Your task to perform on an android device: change the clock style Image 0: 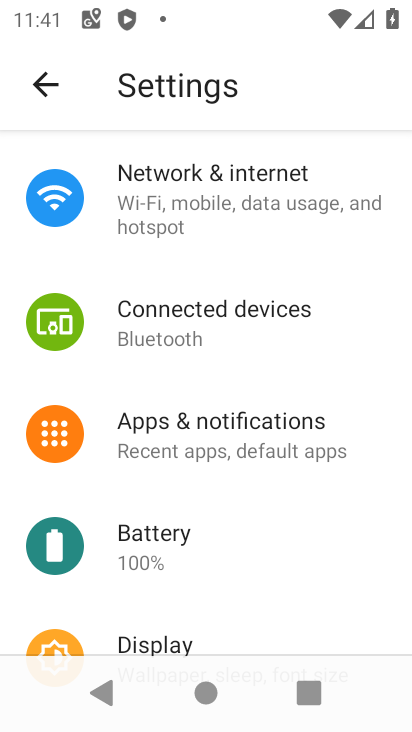
Step 0: press home button
Your task to perform on an android device: change the clock style Image 1: 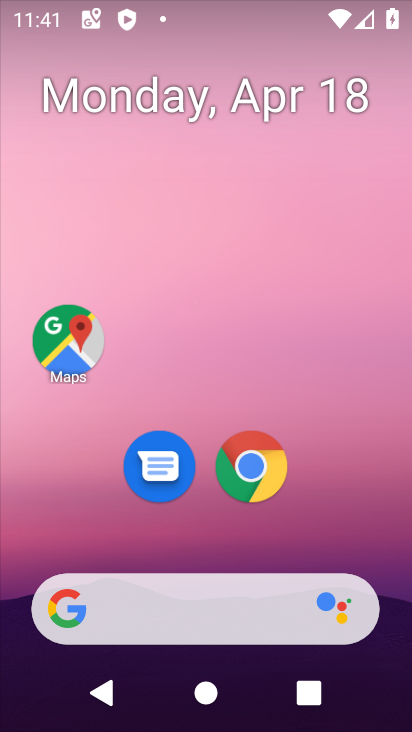
Step 1: drag from (258, 487) to (343, 9)
Your task to perform on an android device: change the clock style Image 2: 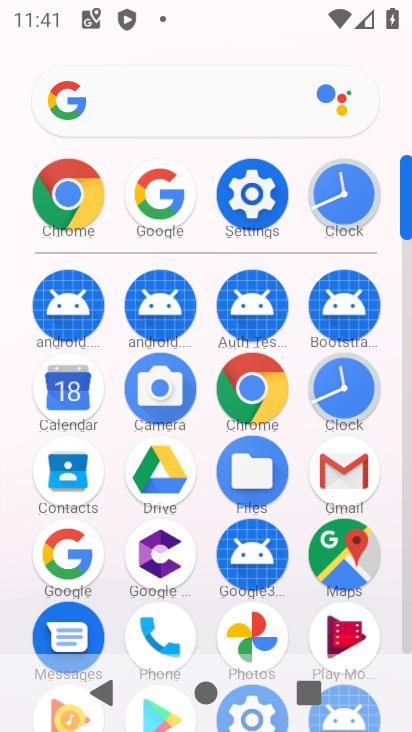
Step 2: drag from (261, 457) to (270, 72)
Your task to perform on an android device: change the clock style Image 3: 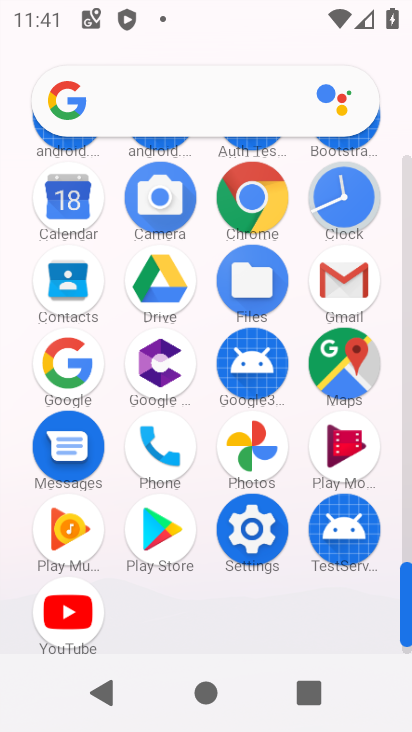
Step 3: click (339, 195)
Your task to perform on an android device: change the clock style Image 4: 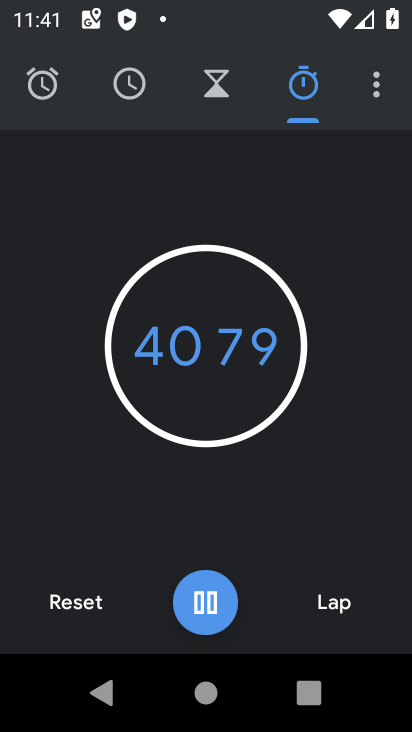
Step 4: click (379, 94)
Your task to perform on an android device: change the clock style Image 5: 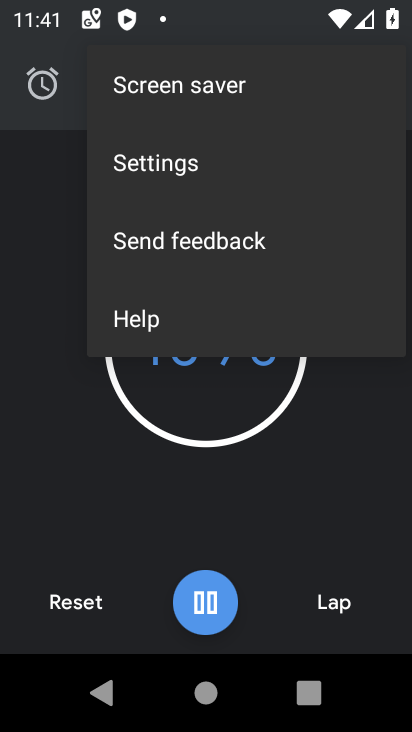
Step 5: click (202, 180)
Your task to perform on an android device: change the clock style Image 6: 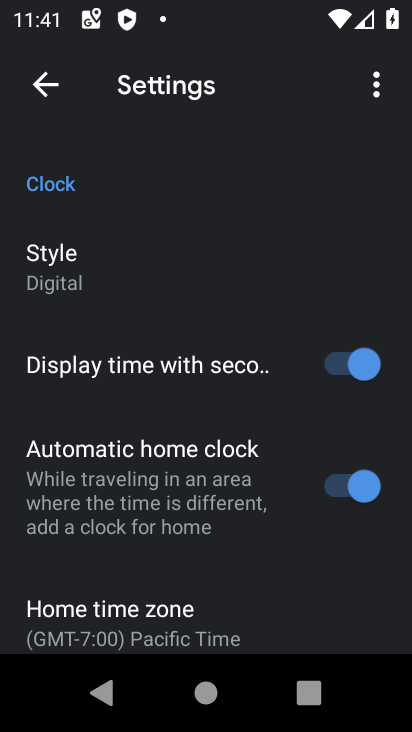
Step 6: click (165, 262)
Your task to perform on an android device: change the clock style Image 7: 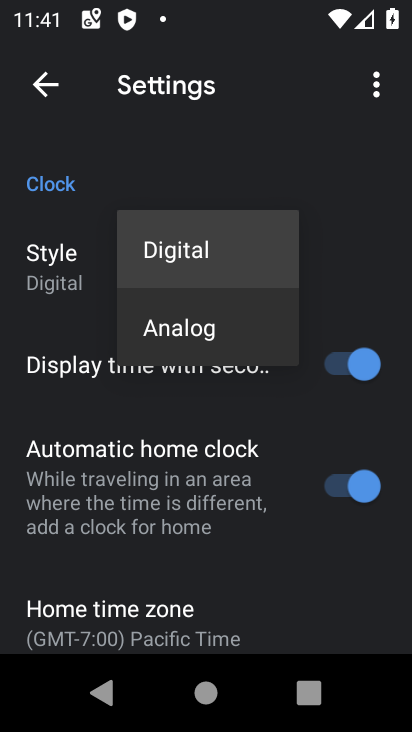
Step 7: click (211, 333)
Your task to perform on an android device: change the clock style Image 8: 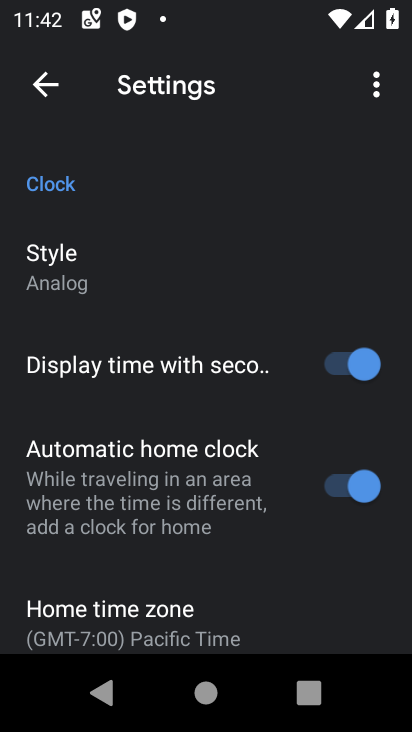
Step 8: task complete